Your task to perform on an android device: toggle notification dots Image 0: 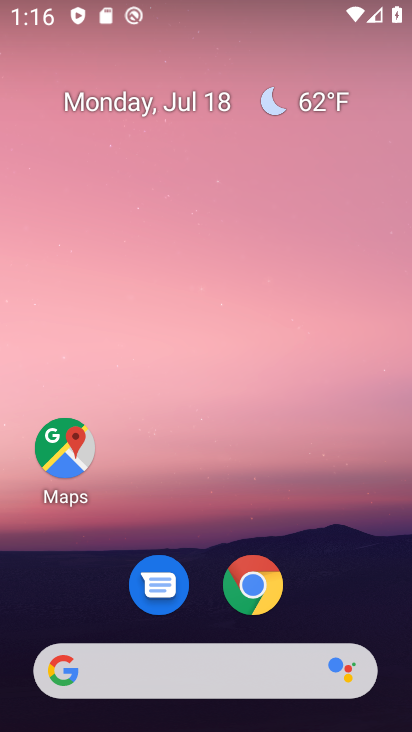
Step 0: drag from (223, 655) to (231, 160)
Your task to perform on an android device: toggle notification dots Image 1: 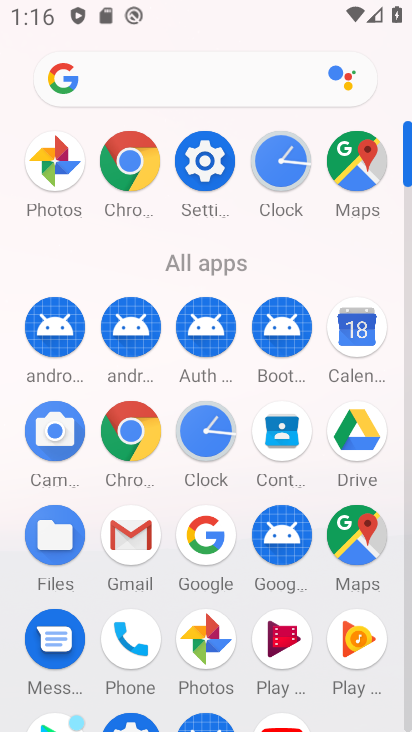
Step 1: click (197, 168)
Your task to perform on an android device: toggle notification dots Image 2: 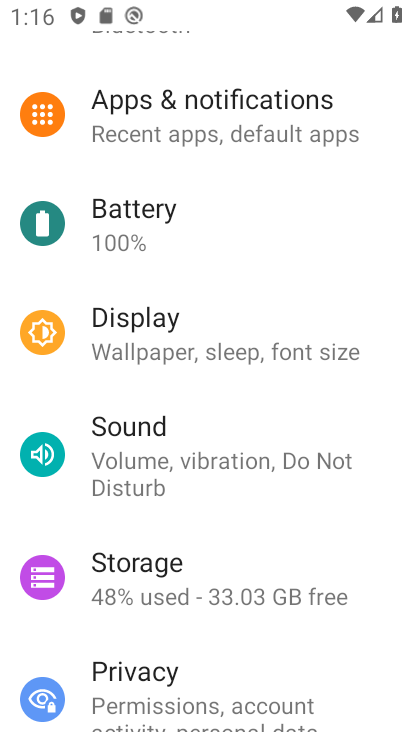
Step 2: click (165, 141)
Your task to perform on an android device: toggle notification dots Image 3: 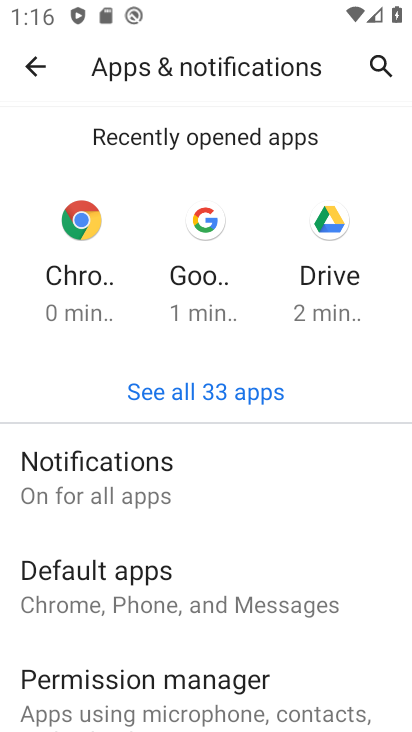
Step 3: click (134, 491)
Your task to perform on an android device: toggle notification dots Image 4: 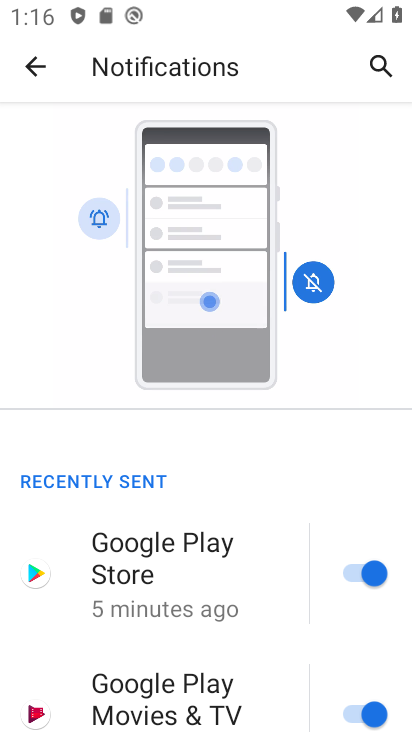
Step 4: drag from (228, 665) to (179, 179)
Your task to perform on an android device: toggle notification dots Image 5: 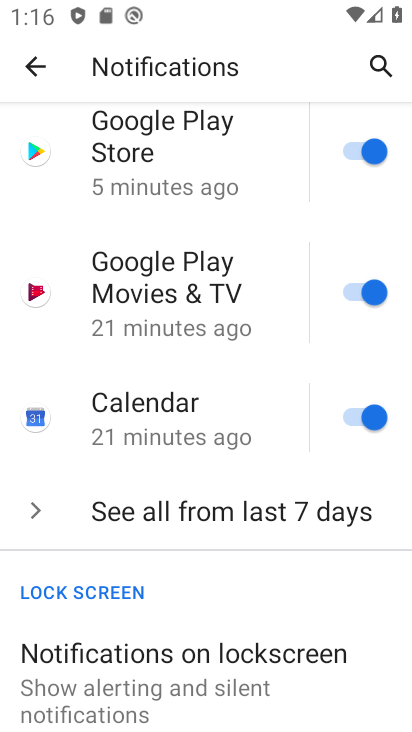
Step 5: drag from (254, 643) to (217, 207)
Your task to perform on an android device: toggle notification dots Image 6: 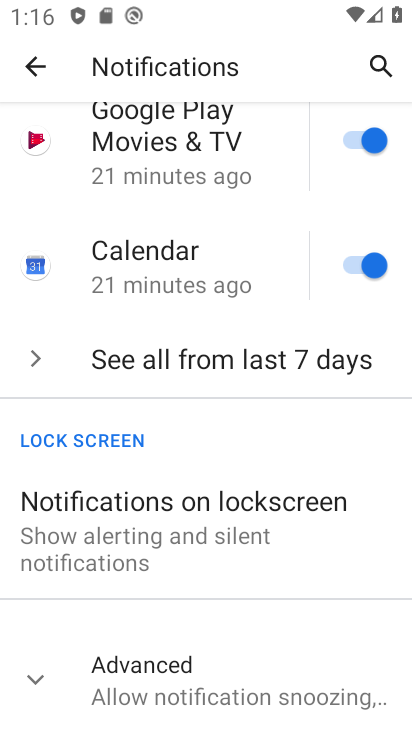
Step 6: click (184, 689)
Your task to perform on an android device: toggle notification dots Image 7: 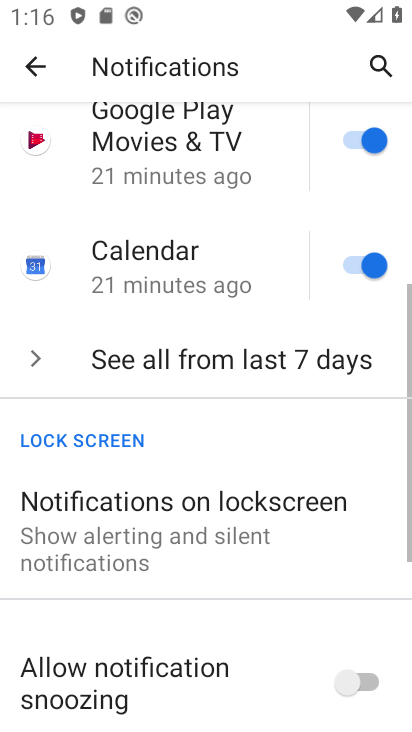
Step 7: drag from (216, 675) to (193, 210)
Your task to perform on an android device: toggle notification dots Image 8: 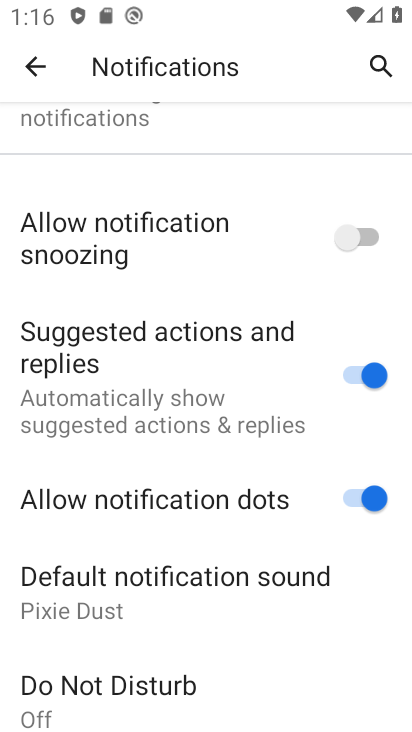
Step 8: click (367, 497)
Your task to perform on an android device: toggle notification dots Image 9: 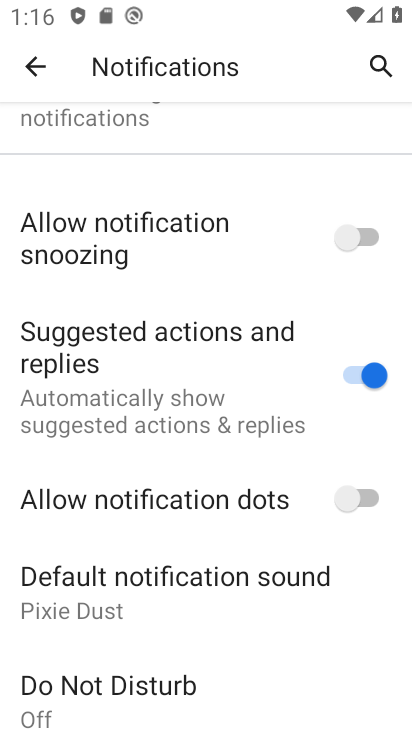
Step 9: task complete